Your task to perform on an android device: Open notification settings Image 0: 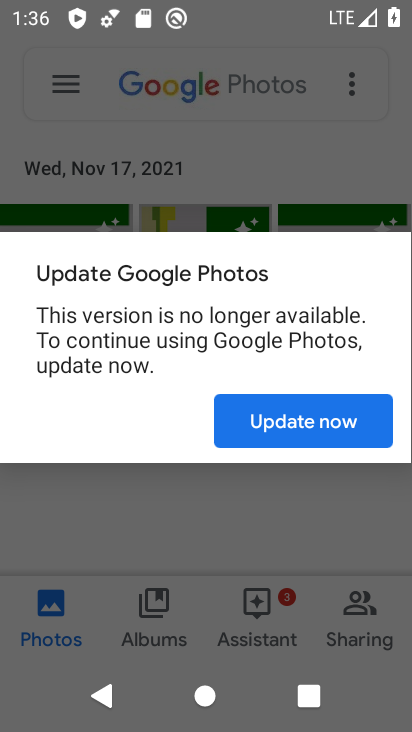
Step 0: press home button
Your task to perform on an android device: Open notification settings Image 1: 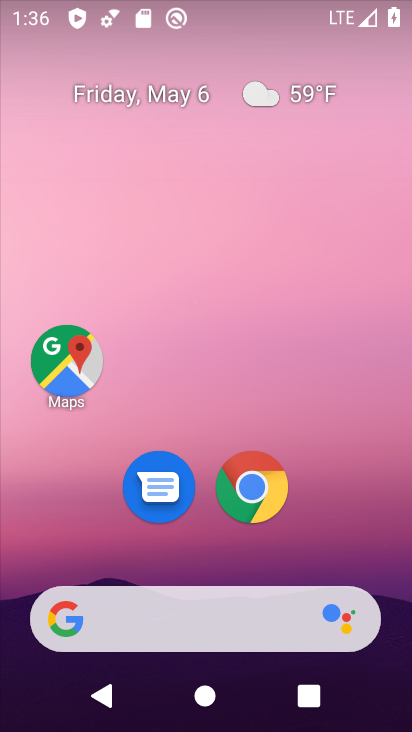
Step 1: drag from (260, 546) to (327, 163)
Your task to perform on an android device: Open notification settings Image 2: 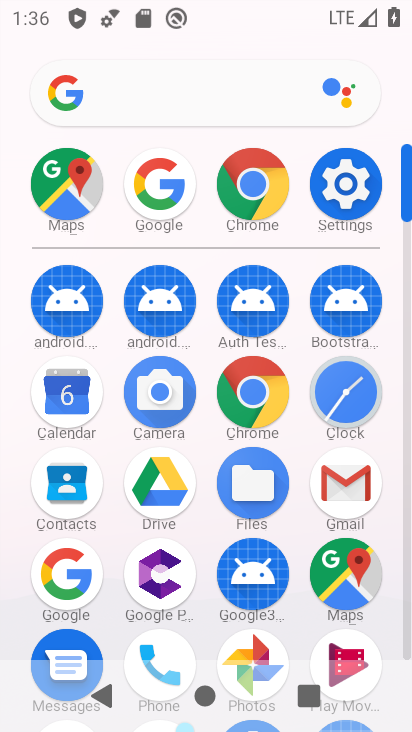
Step 2: click (349, 199)
Your task to perform on an android device: Open notification settings Image 3: 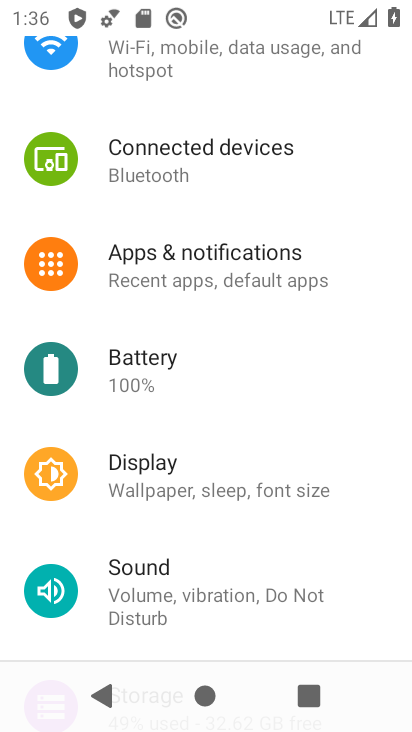
Step 3: click (238, 271)
Your task to perform on an android device: Open notification settings Image 4: 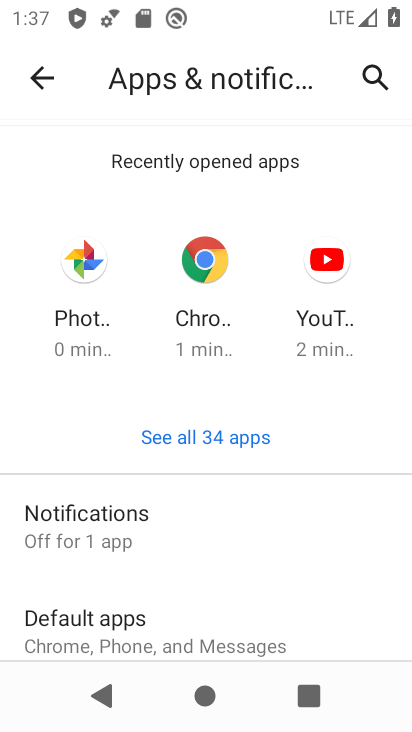
Step 4: click (168, 531)
Your task to perform on an android device: Open notification settings Image 5: 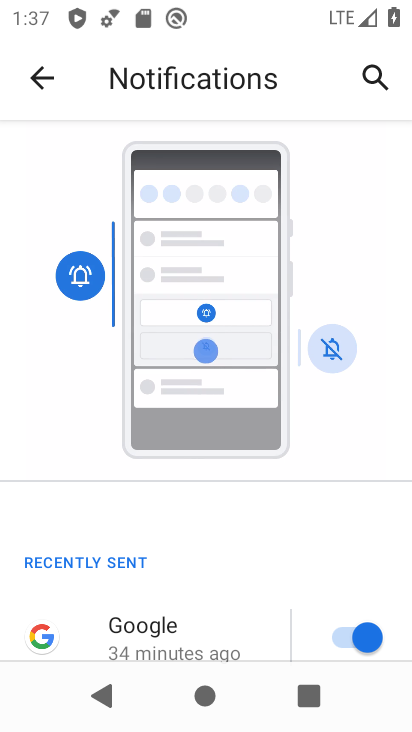
Step 5: task complete